Your task to perform on an android device: see tabs open on other devices in the chrome app Image 0: 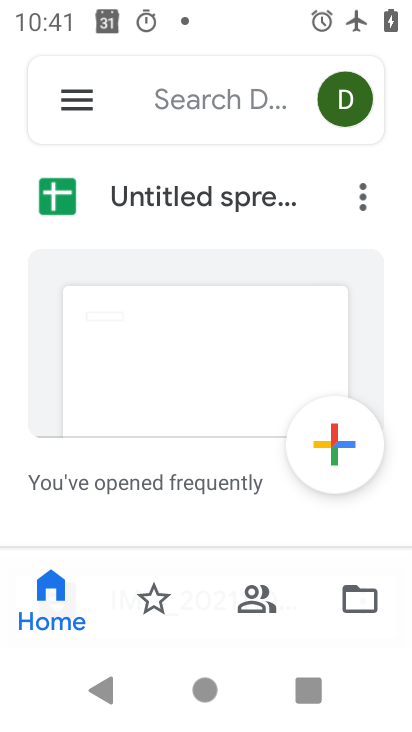
Step 0: press home button
Your task to perform on an android device: see tabs open on other devices in the chrome app Image 1: 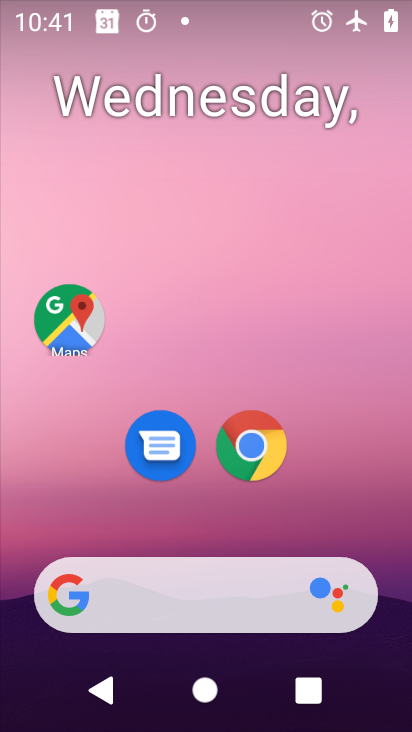
Step 1: drag from (303, 522) to (275, 29)
Your task to perform on an android device: see tabs open on other devices in the chrome app Image 2: 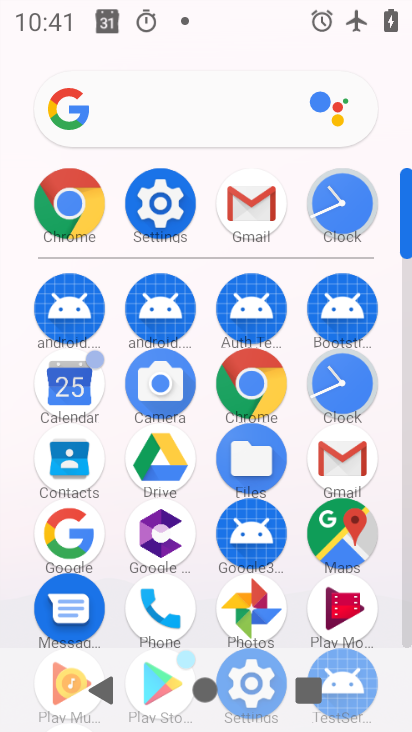
Step 2: click (44, 200)
Your task to perform on an android device: see tabs open on other devices in the chrome app Image 3: 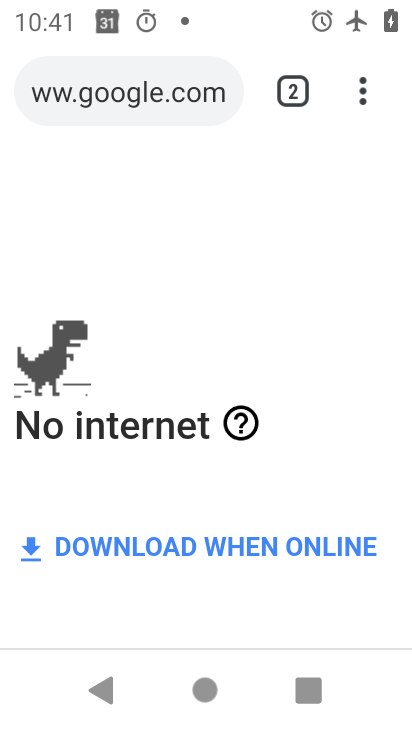
Step 3: task complete